Your task to perform on an android device: Open a new Chrome private window Image 0: 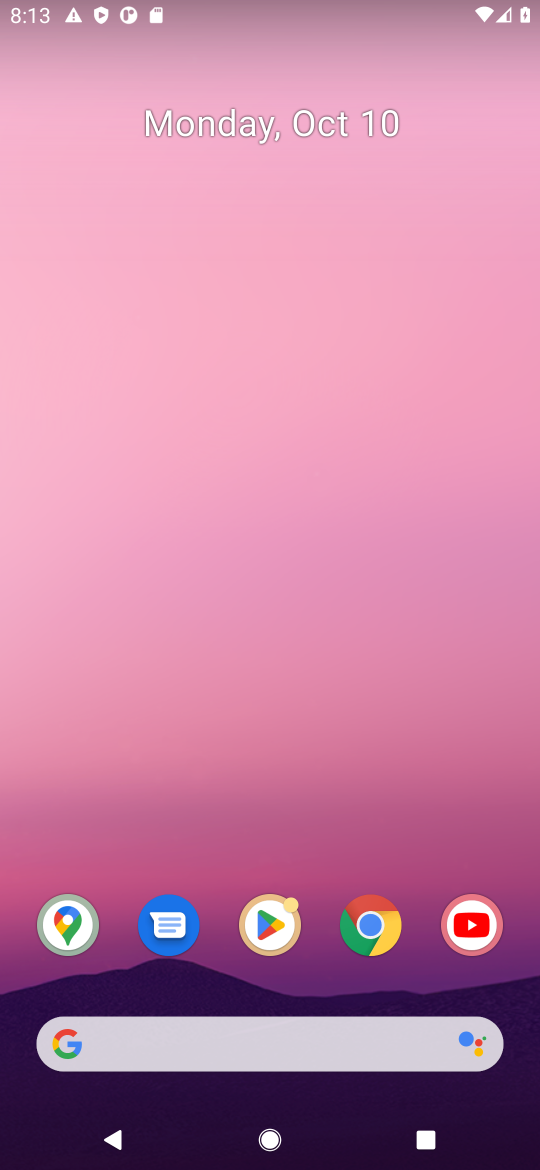
Step 0: drag from (297, 1009) to (241, 221)
Your task to perform on an android device: Open a new Chrome private window Image 1: 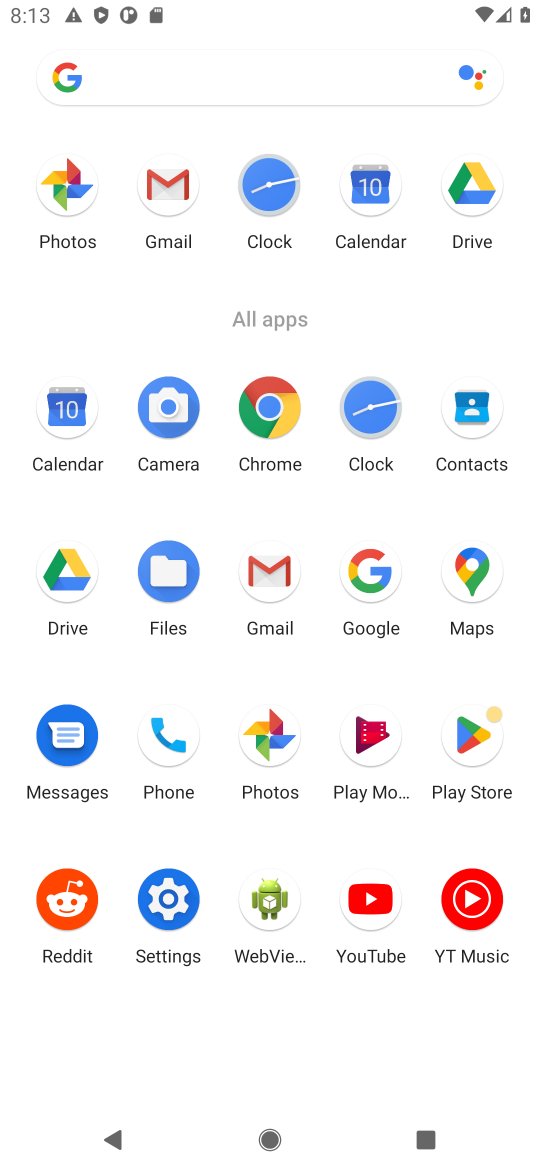
Step 1: click (268, 403)
Your task to perform on an android device: Open a new Chrome private window Image 2: 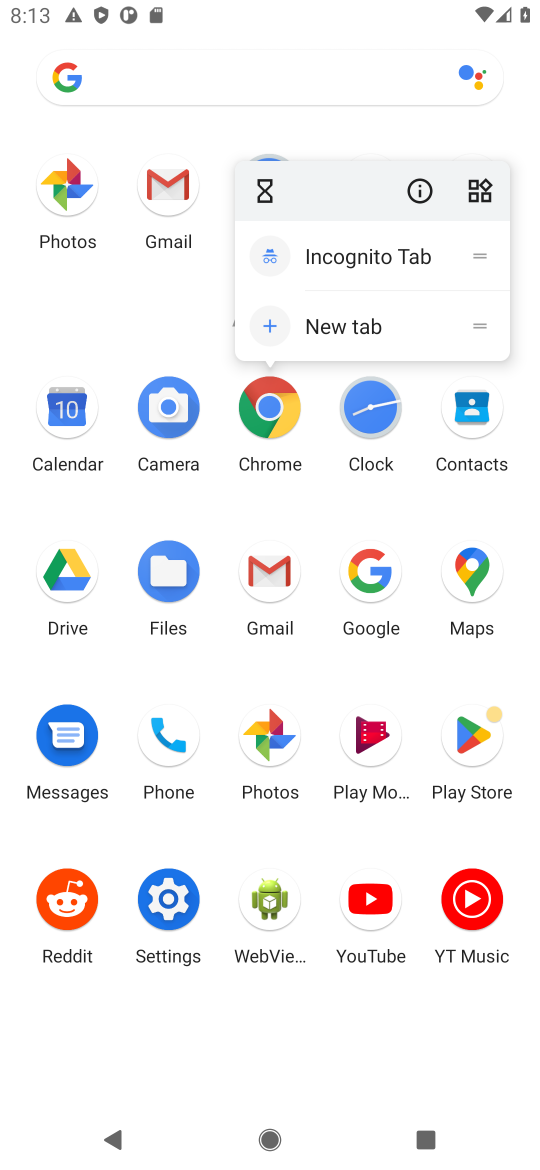
Step 2: click (263, 410)
Your task to perform on an android device: Open a new Chrome private window Image 3: 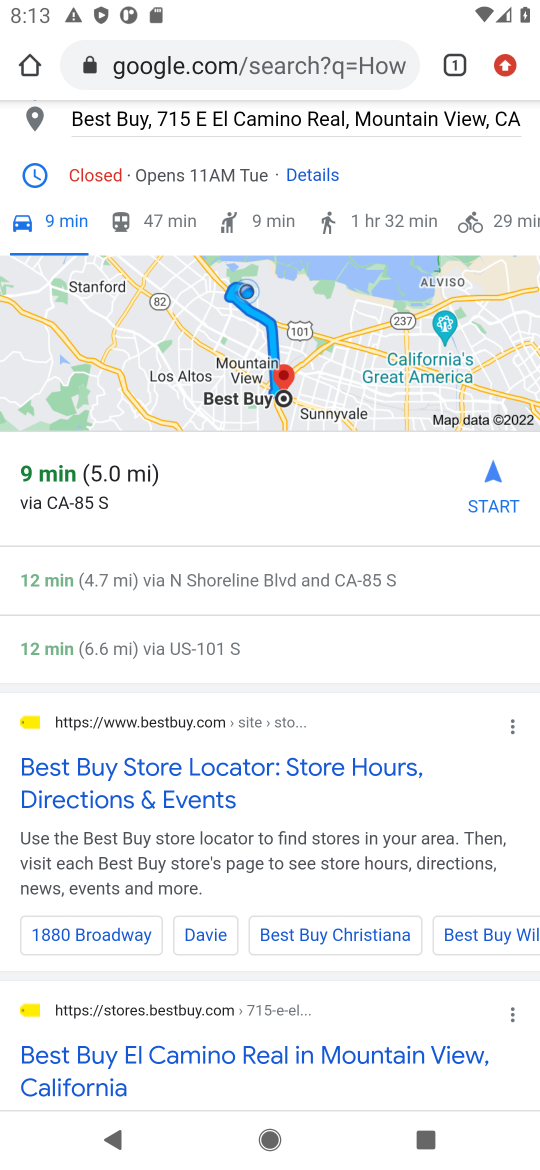
Step 3: click (262, 60)
Your task to perform on an android device: Open a new Chrome private window Image 4: 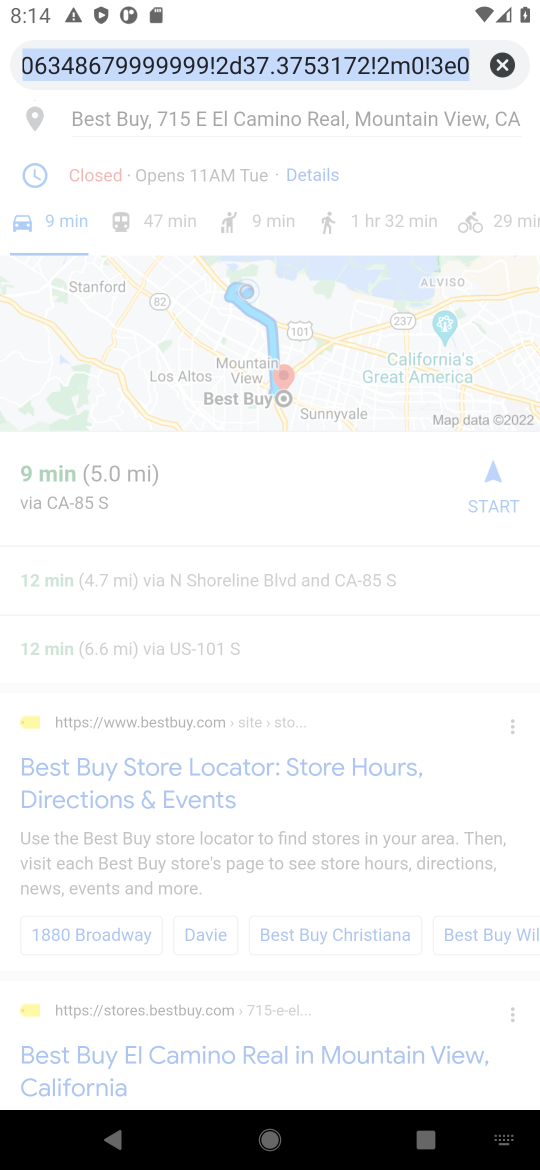
Step 4: click (396, 152)
Your task to perform on an android device: Open a new Chrome private window Image 5: 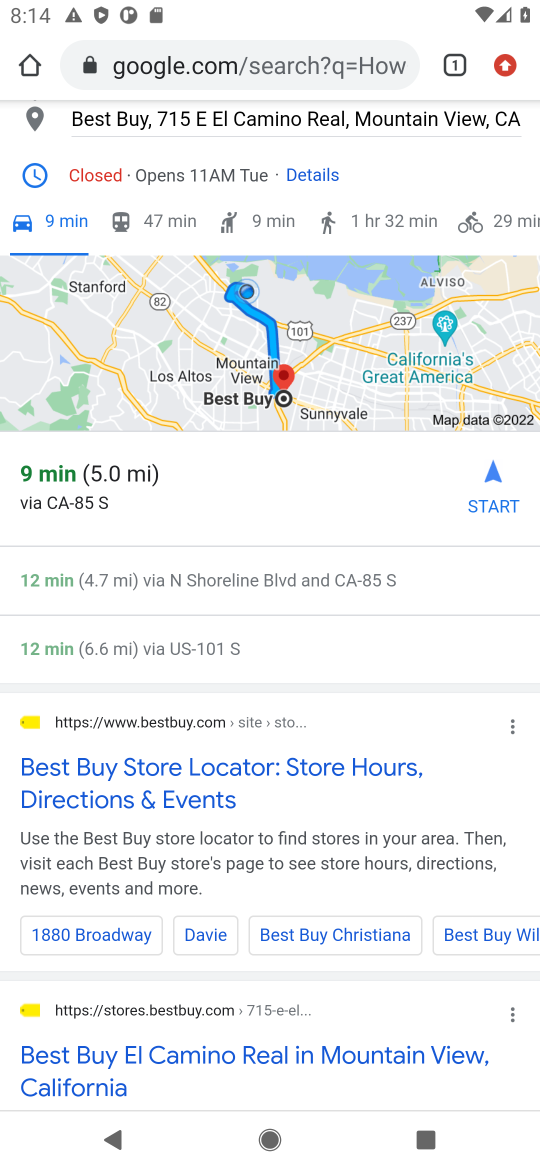
Step 5: task complete